Your task to perform on an android device: see creations saved in the google photos Image 0: 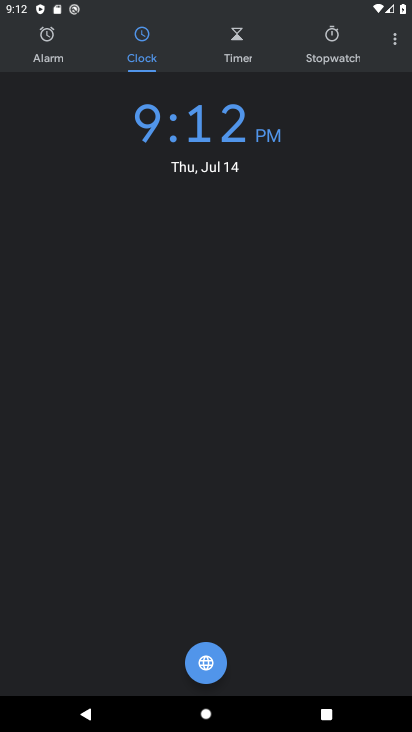
Step 0: press home button
Your task to perform on an android device: see creations saved in the google photos Image 1: 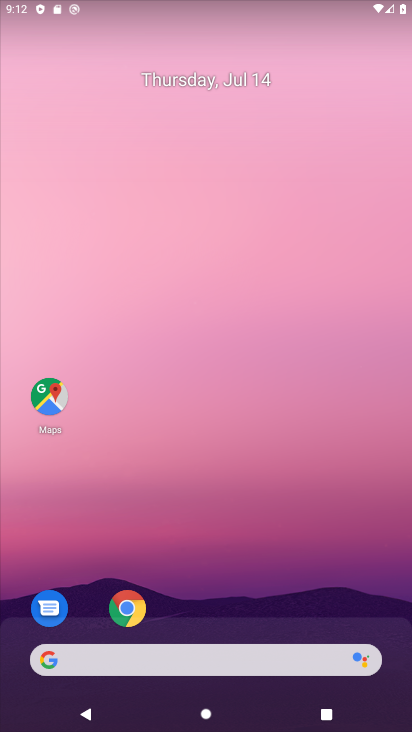
Step 1: drag from (268, 672) to (358, 57)
Your task to perform on an android device: see creations saved in the google photos Image 2: 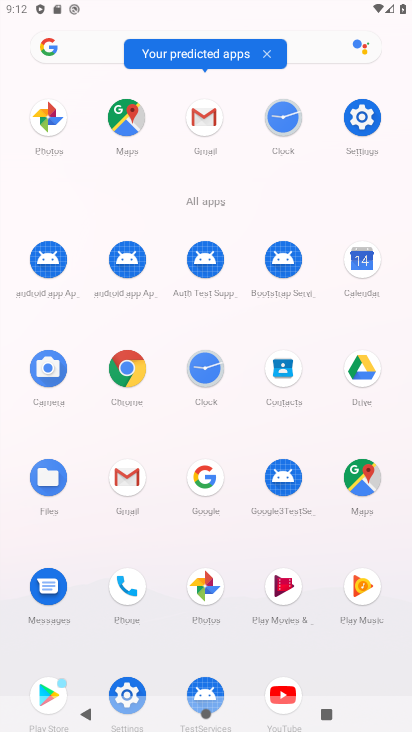
Step 2: click (199, 586)
Your task to perform on an android device: see creations saved in the google photos Image 3: 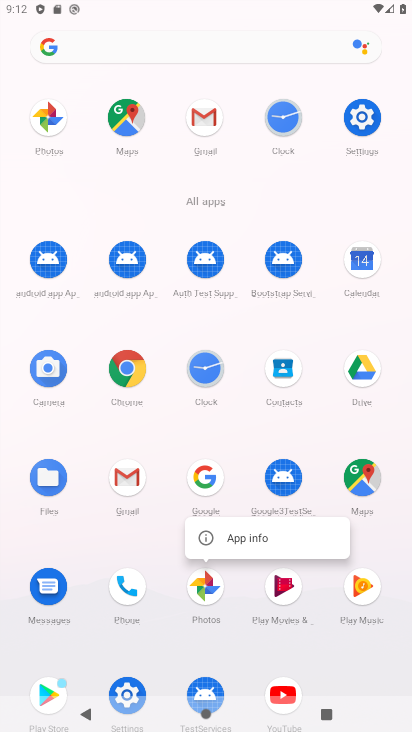
Step 3: click (194, 598)
Your task to perform on an android device: see creations saved in the google photos Image 4: 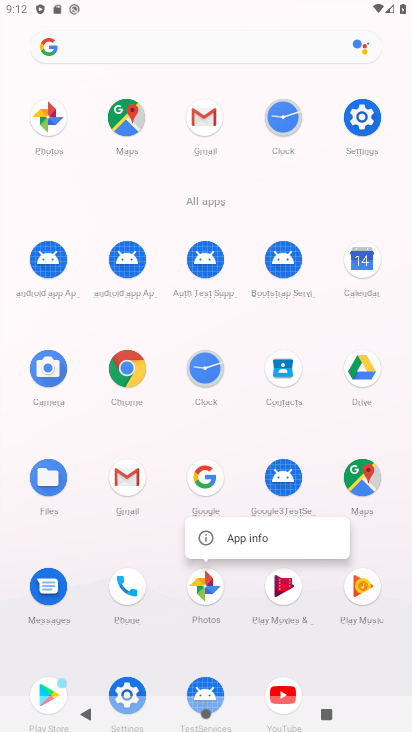
Step 4: click (197, 594)
Your task to perform on an android device: see creations saved in the google photos Image 5: 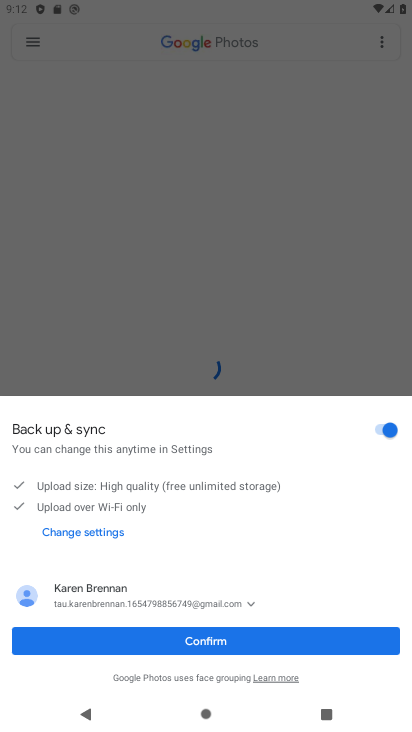
Step 5: click (210, 646)
Your task to perform on an android device: see creations saved in the google photos Image 6: 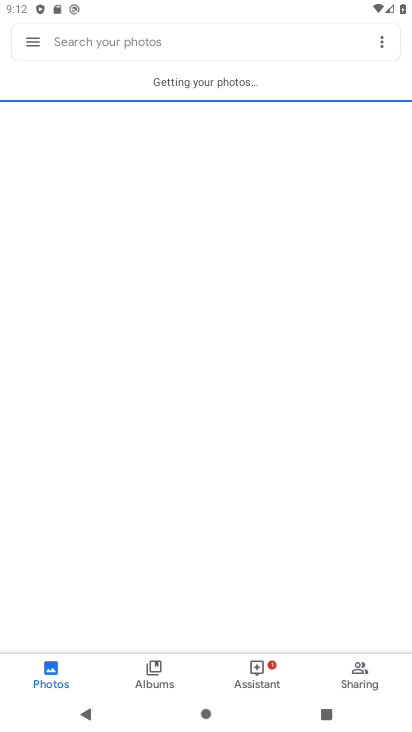
Step 6: click (175, 45)
Your task to perform on an android device: see creations saved in the google photos Image 7: 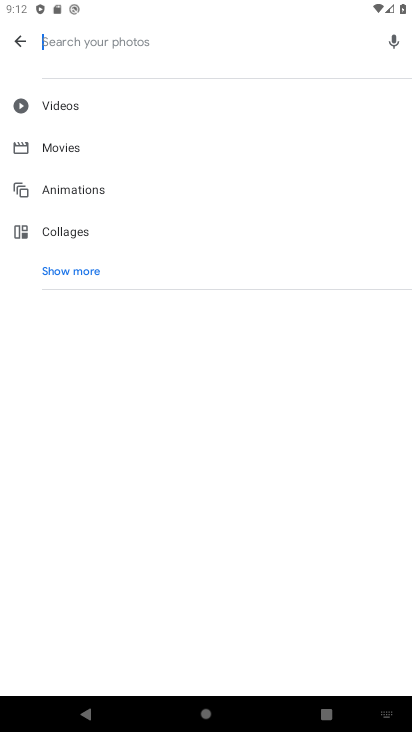
Step 7: click (102, 274)
Your task to perform on an android device: see creations saved in the google photos Image 8: 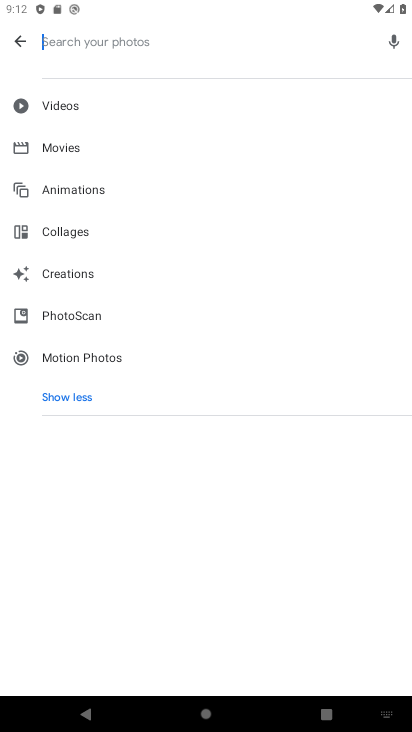
Step 8: click (88, 273)
Your task to perform on an android device: see creations saved in the google photos Image 9: 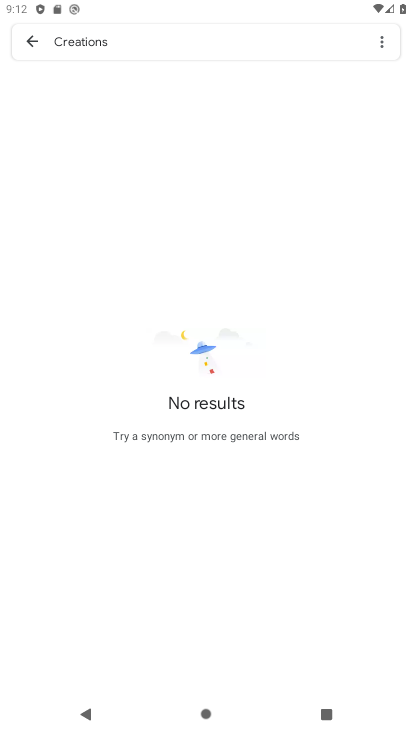
Step 9: task complete